Your task to perform on an android device: set an alarm Image 0: 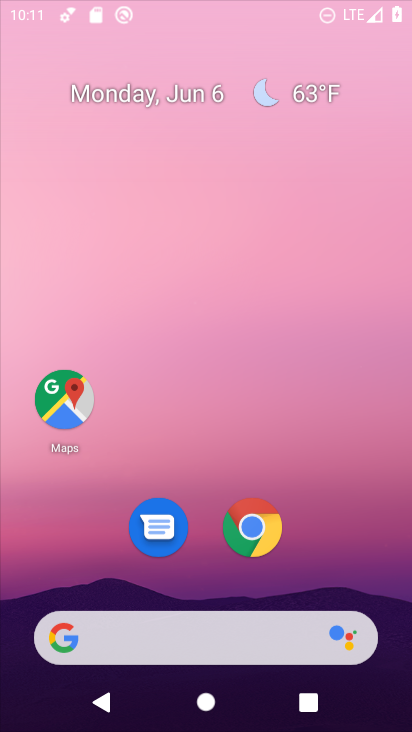
Step 0: press home button
Your task to perform on an android device: set an alarm Image 1: 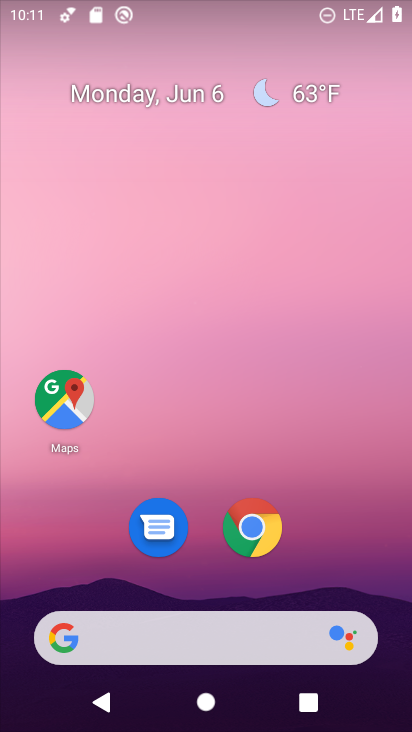
Step 1: drag from (380, 558) to (377, 89)
Your task to perform on an android device: set an alarm Image 2: 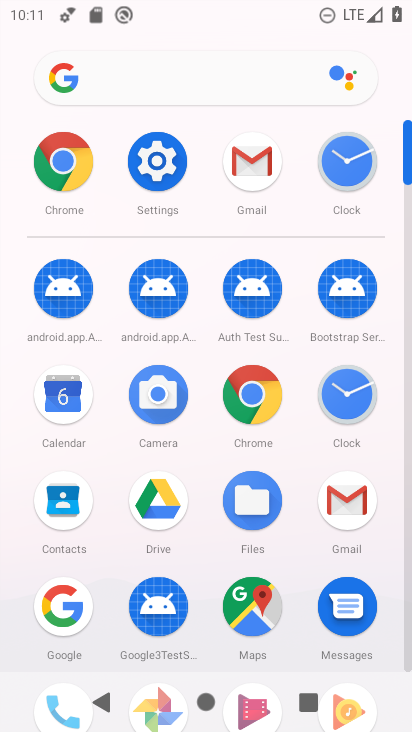
Step 2: click (350, 398)
Your task to perform on an android device: set an alarm Image 3: 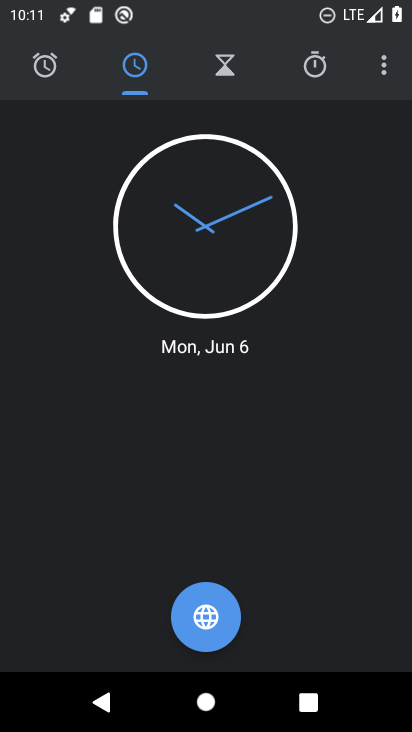
Step 3: click (48, 76)
Your task to perform on an android device: set an alarm Image 4: 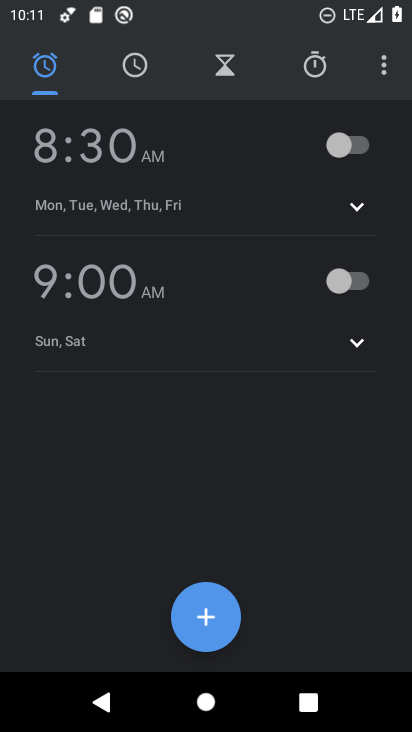
Step 4: click (219, 624)
Your task to perform on an android device: set an alarm Image 5: 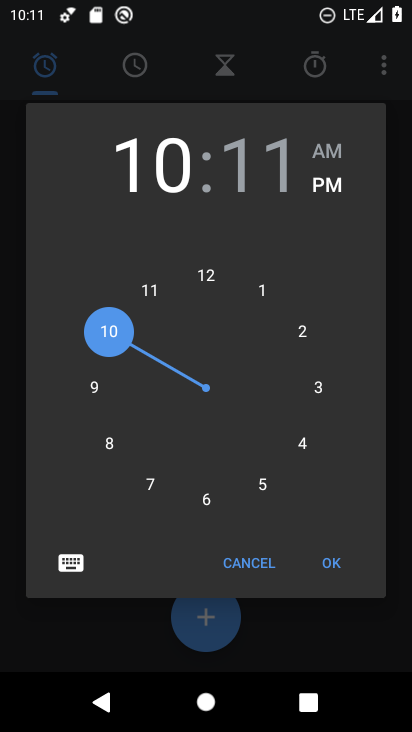
Step 5: click (338, 552)
Your task to perform on an android device: set an alarm Image 6: 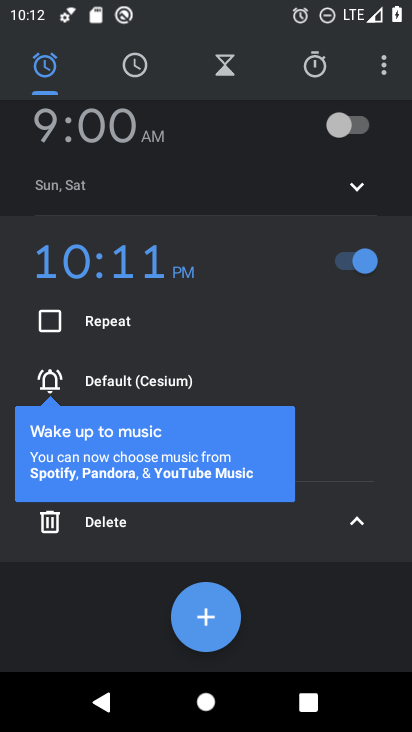
Step 6: task complete